Your task to perform on an android device: Search for vegetarian restaurants on Maps Image 0: 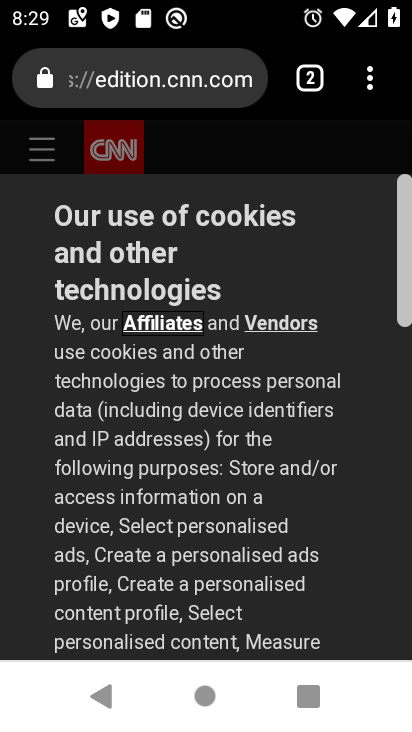
Step 0: press back button
Your task to perform on an android device: Search for vegetarian restaurants on Maps Image 1: 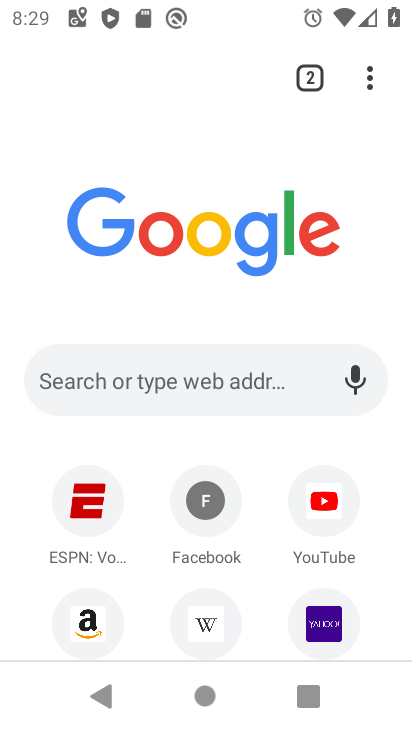
Step 1: press back button
Your task to perform on an android device: Search for vegetarian restaurants on Maps Image 2: 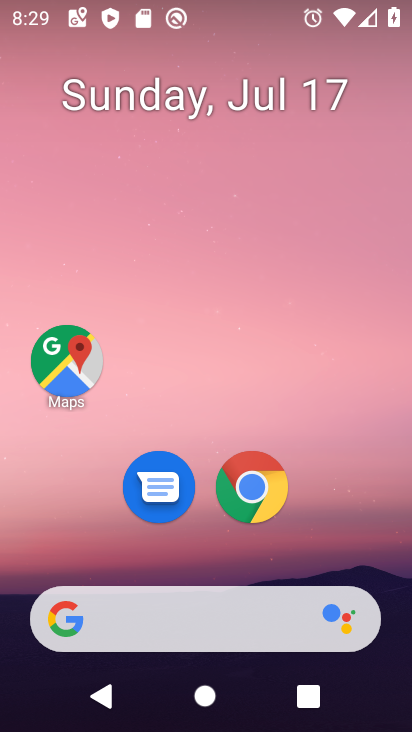
Step 2: click (80, 369)
Your task to perform on an android device: Search for vegetarian restaurants on Maps Image 3: 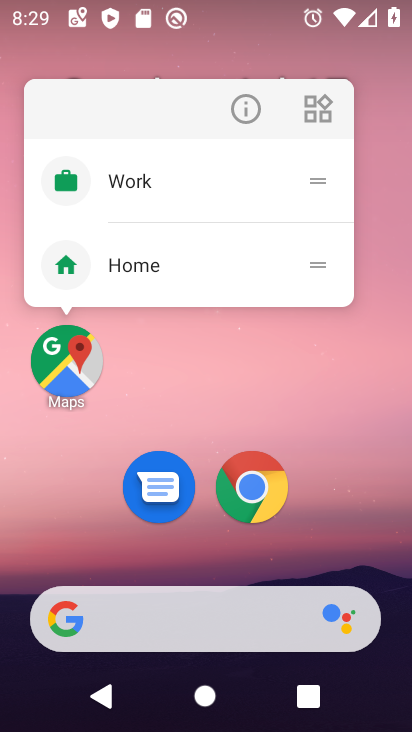
Step 3: click (61, 362)
Your task to perform on an android device: Search for vegetarian restaurants on Maps Image 4: 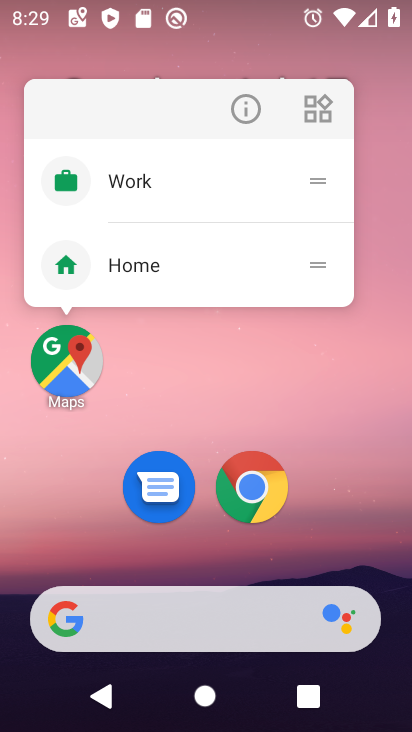
Step 4: click (61, 362)
Your task to perform on an android device: Search for vegetarian restaurants on Maps Image 5: 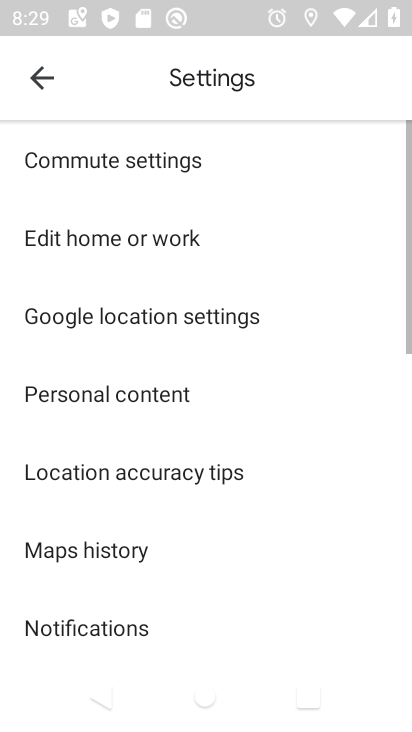
Step 5: click (42, 75)
Your task to perform on an android device: Search for vegetarian restaurants on Maps Image 6: 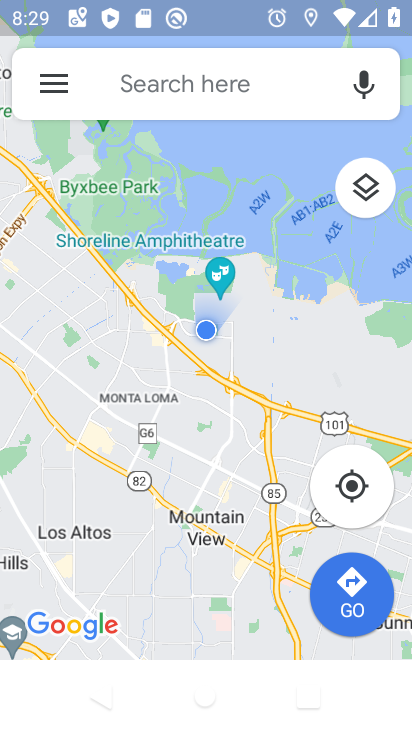
Step 6: click (201, 74)
Your task to perform on an android device: Search for vegetarian restaurants on Maps Image 7: 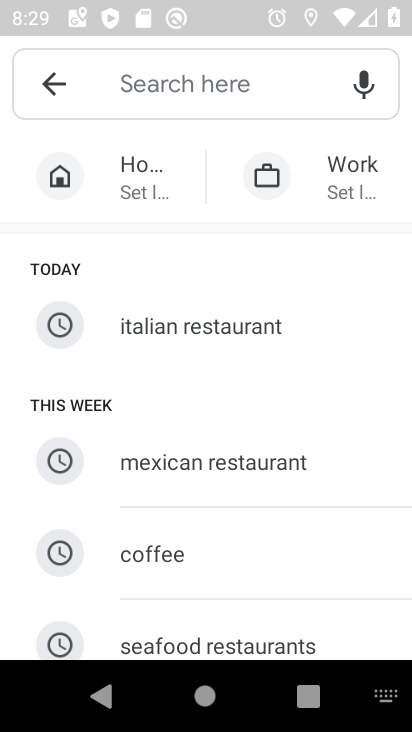
Step 7: type "vegetarian"
Your task to perform on an android device: Search for vegetarian restaurants on Maps Image 8: 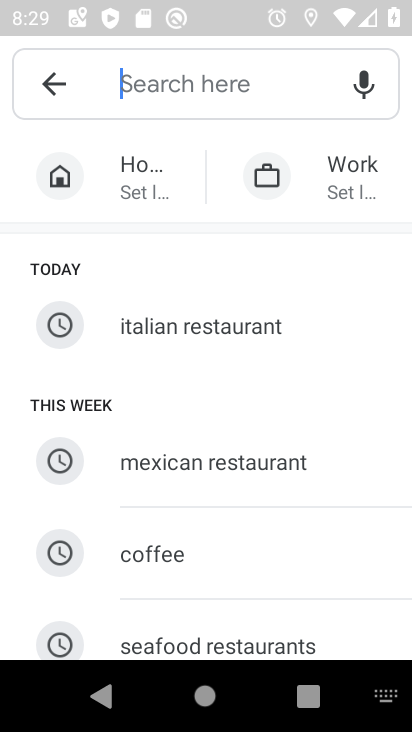
Step 8: drag from (233, 307) to (256, 168)
Your task to perform on an android device: Search for vegetarian restaurants on Maps Image 9: 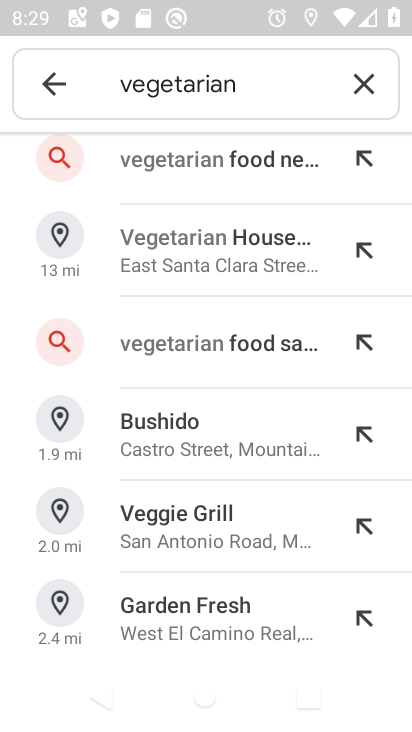
Step 9: drag from (233, 243) to (274, 705)
Your task to perform on an android device: Search for vegetarian restaurants on Maps Image 10: 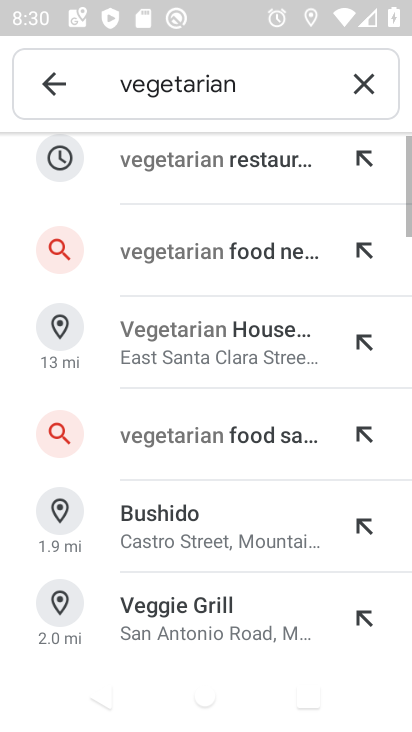
Step 10: click (212, 182)
Your task to perform on an android device: Search for vegetarian restaurants on Maps Image 11: 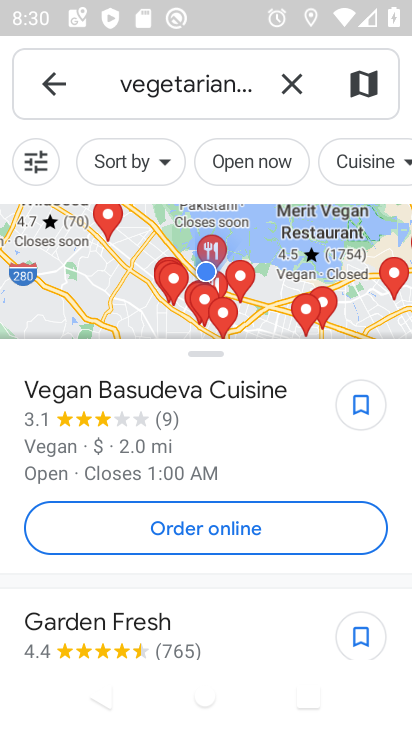
Step 11: task complete